Your task to perform on an android device: Check the weather Image 0: 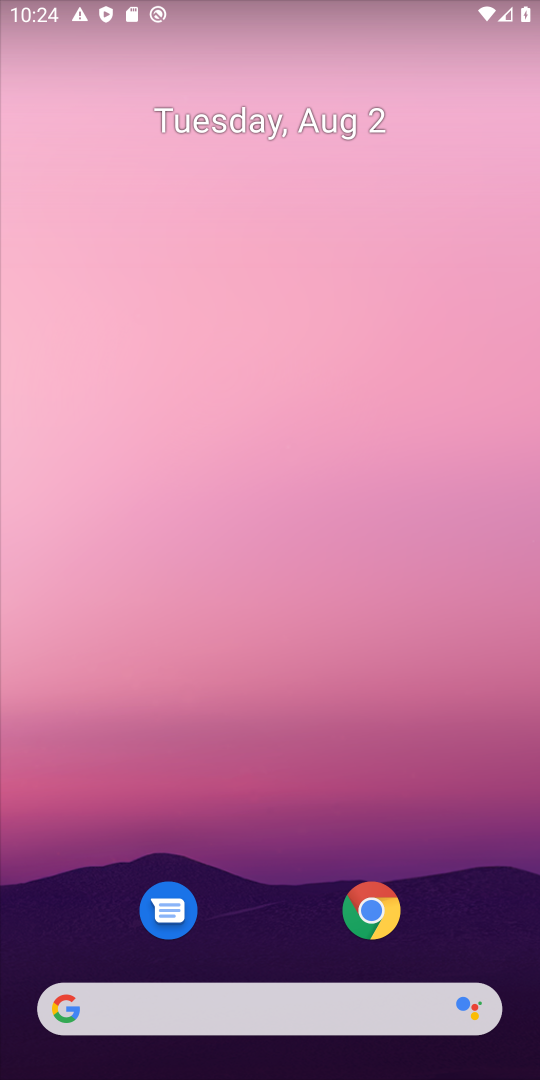
Step 0: click (292, 992)
Your task to perform on an android device: Check the weather Image 1: 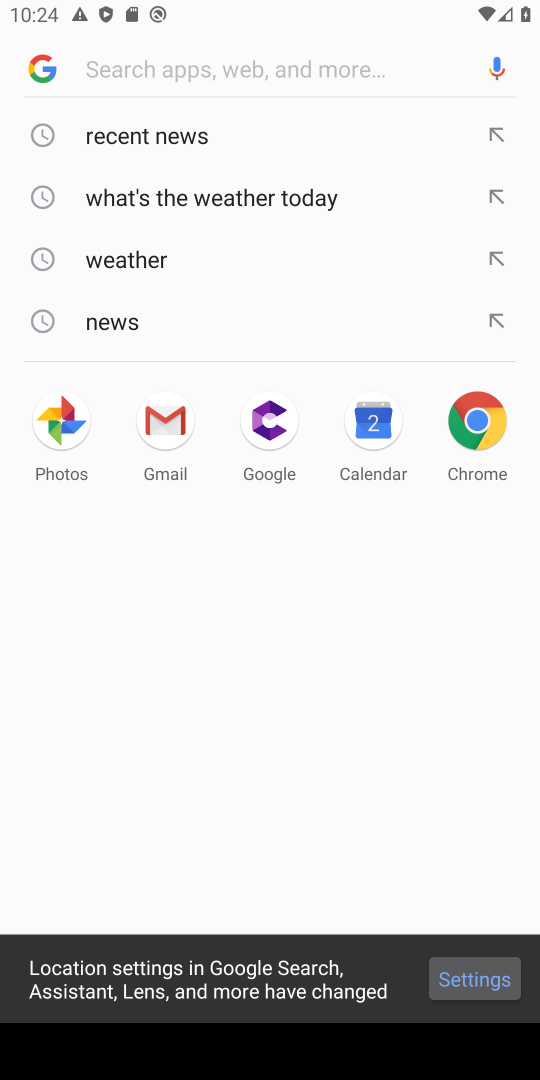
Step 1: click (129, 254)
Your task to perform on an android device: Check the weather Image 2: 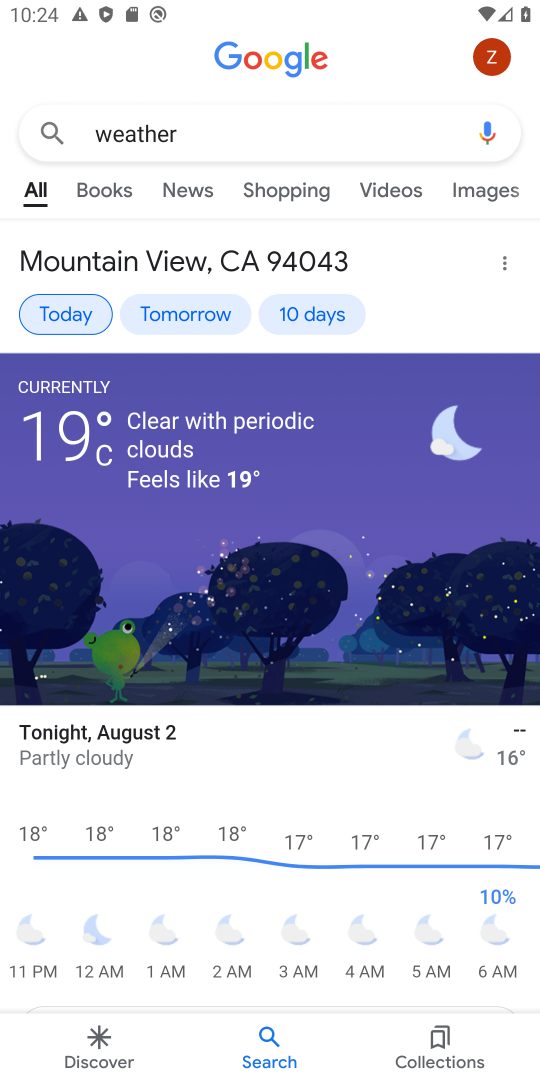
Step 2: task complete